Your task to perform on an android device: Open the map Image 0: 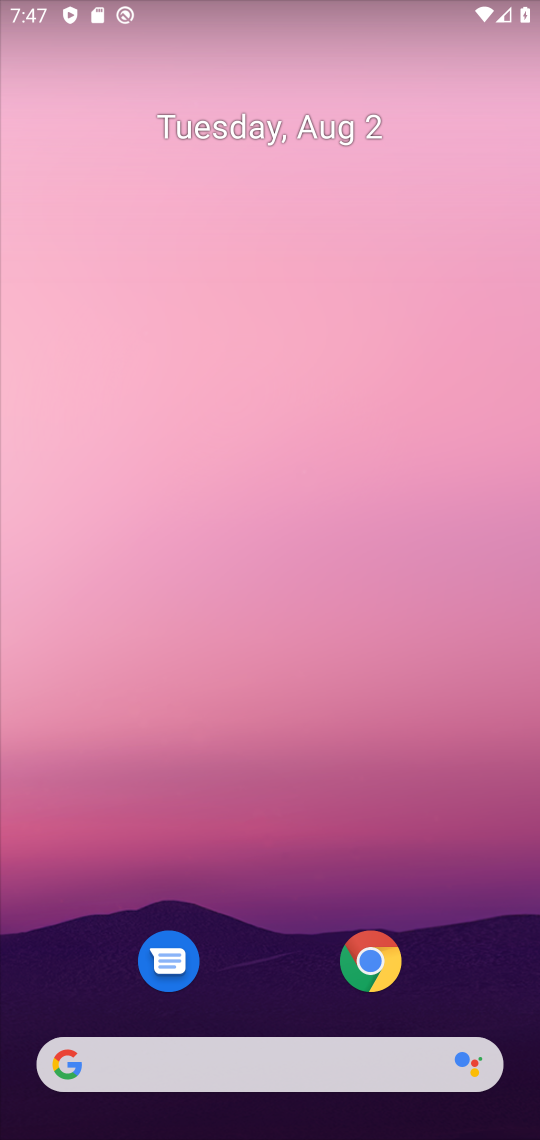
Step 0: drag from (449, 951) to (464, 196)
Your task to perform on an android device: Open the map Image 1: 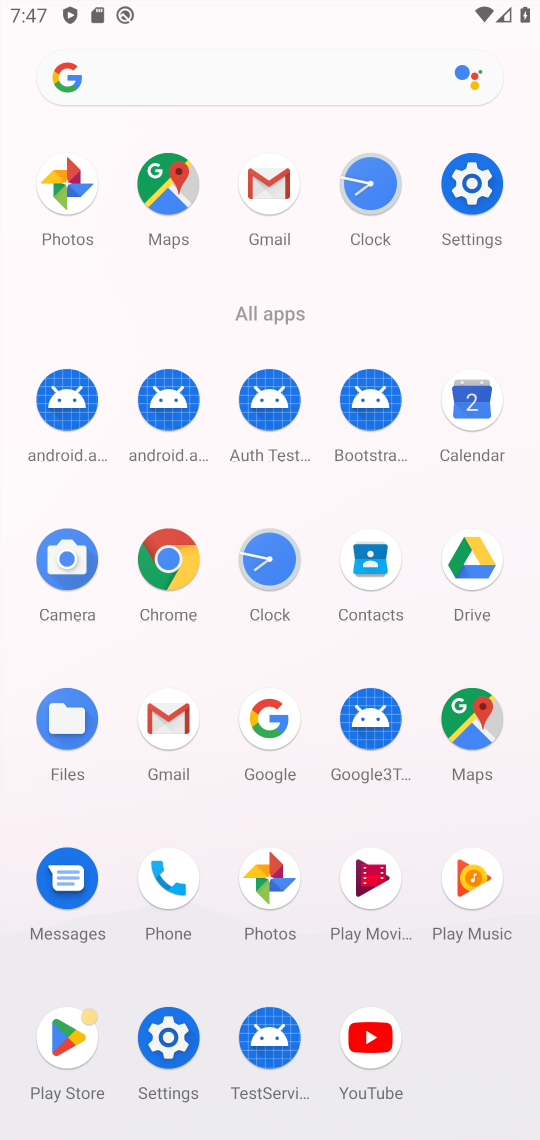
Step 1: click (484, 724)
Your task to perform on an android device: Open the map Image 2: 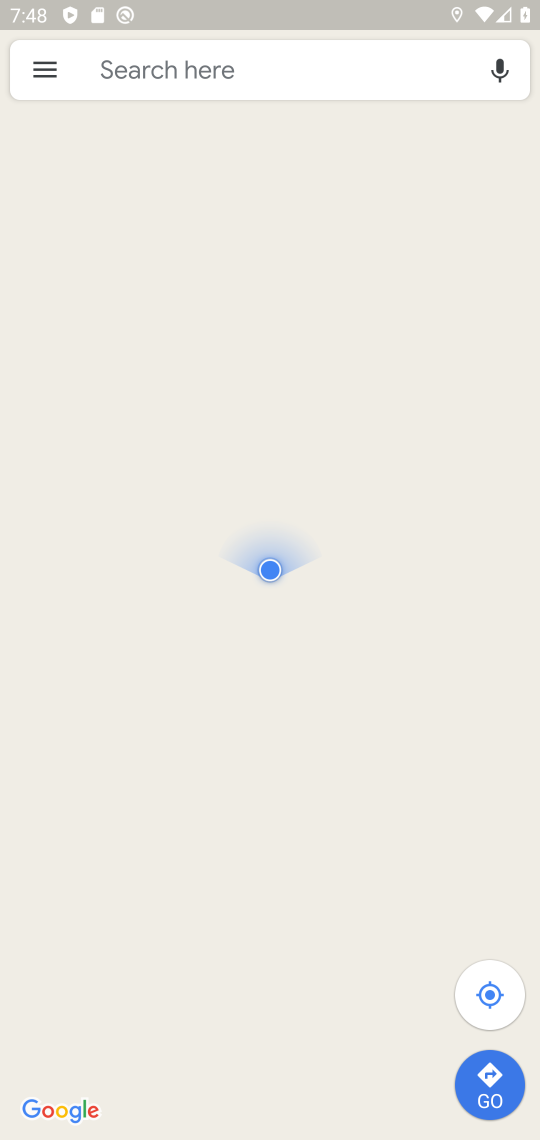
Step 2: task complete